Your task to perform on an android device: Search for pizza restaurants on Maps Image 0: 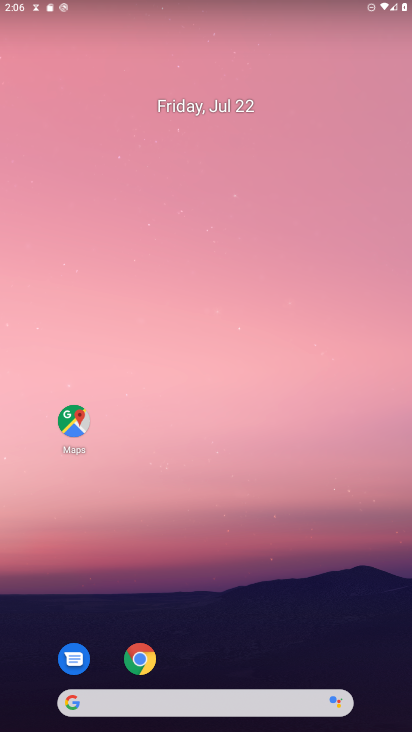
Step 0: drag from (344, 677) to (324, 155)
Your task to perform on an android device: Search for pizza restaurants on Maps Image 1: 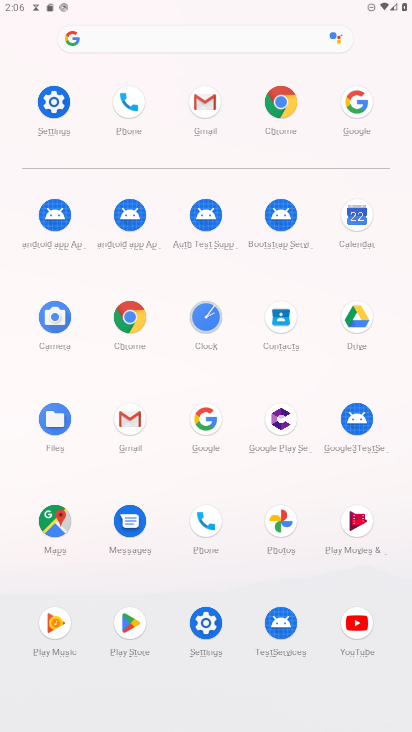
Step 1: click (44, 517)
Your task to perform on an android device: Search for pizza restaurants on Maps Image 2: 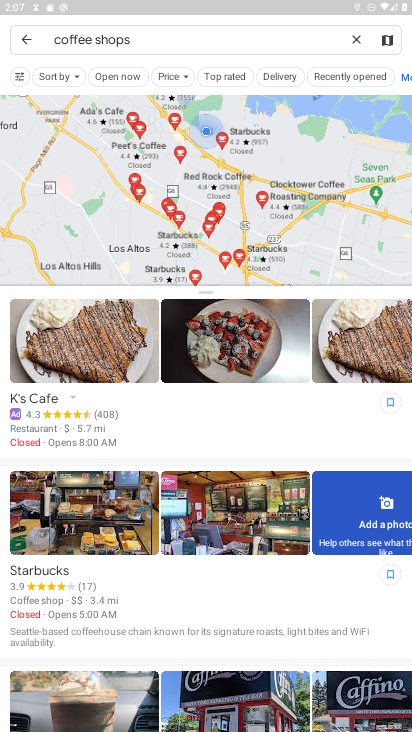
Step 2: click (30, 46)
Your task to perform on an android device: Search for pizza restaurants on Maps Image 3: 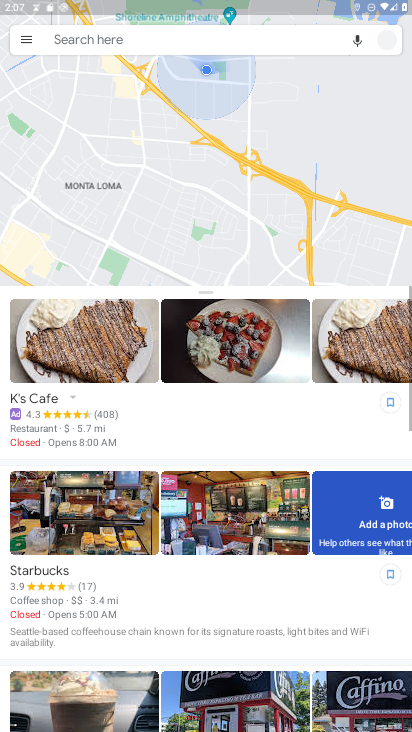
Step 3: click (116, 40)
Your task to perform on an android device: Search for pizza restaurants on Maps Image 4: 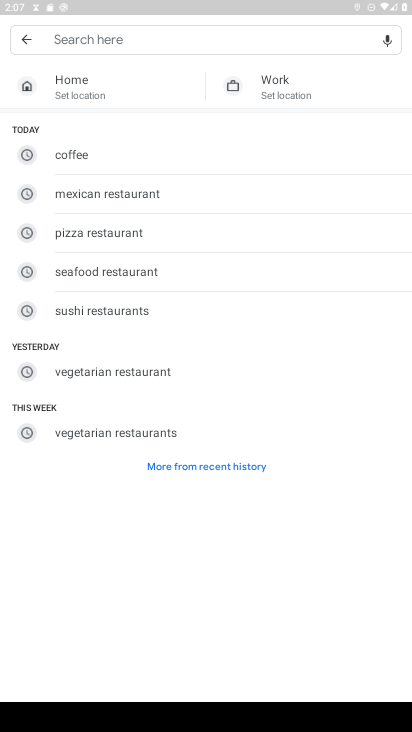
Step 4: click (155, 231)
Your task to perform on an android device: Search for pizza restaurants on Maps Image 5: 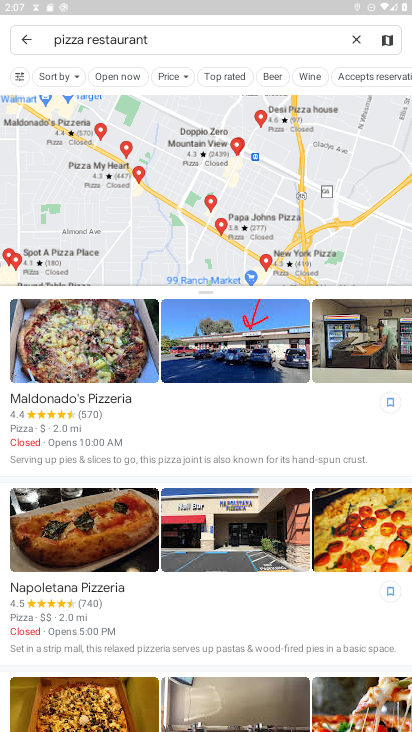
Step 5: task complete